Your task to perform on an android device: turn pop-ups on in chrome Image 0: 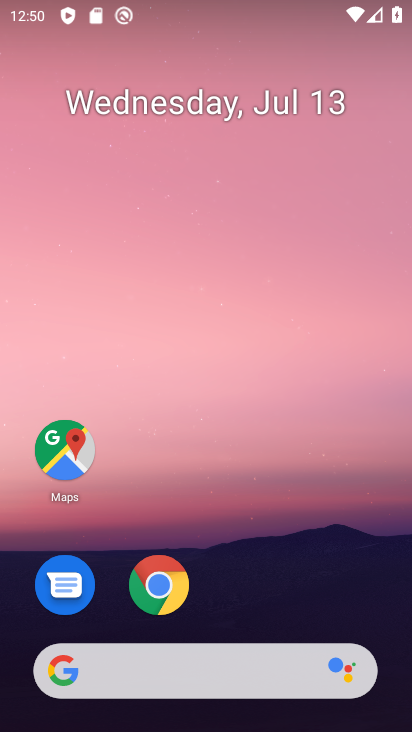
Step 0: click (157, 594)
Your task to perform on an android device: turn pop-ups on in chrome Image 1: 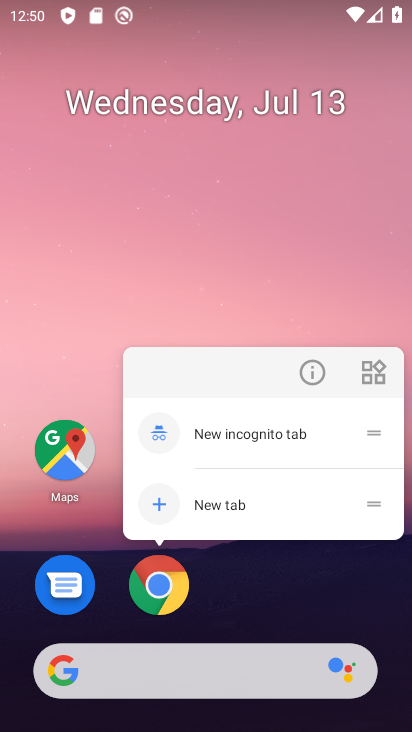
Step 1: click (161, 590)
Your task to perform on an android device: turn pop-ups on in chrome Image 2: 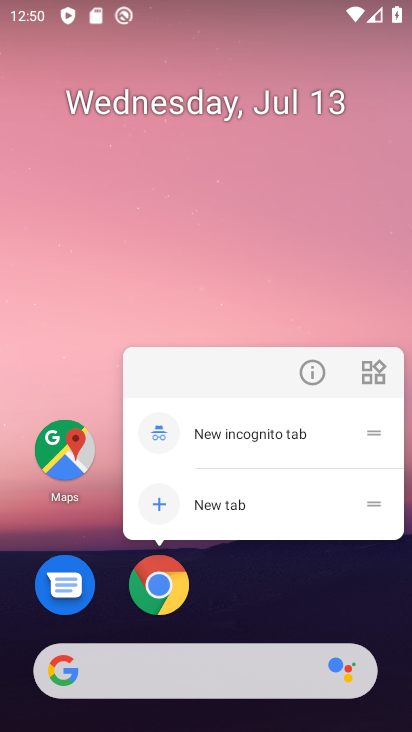
Step 2: click (161, 590)
Your task to perform on an android device: turn pop-ups on in chrome Image 3: 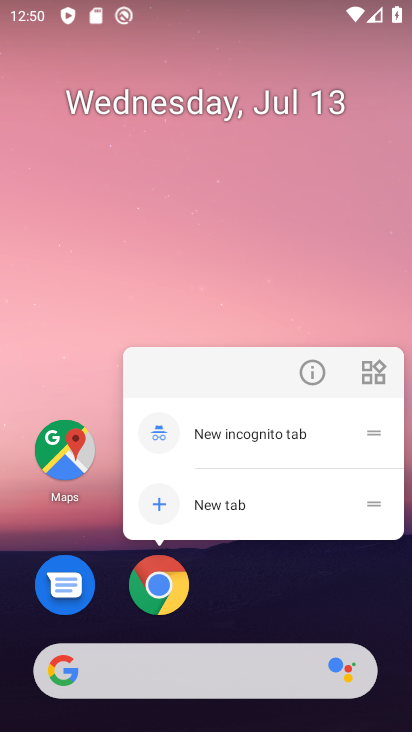
Step 3: click (161, 590)
Your task to perform on an android device: turn pop-ups on in chrome Image 4: 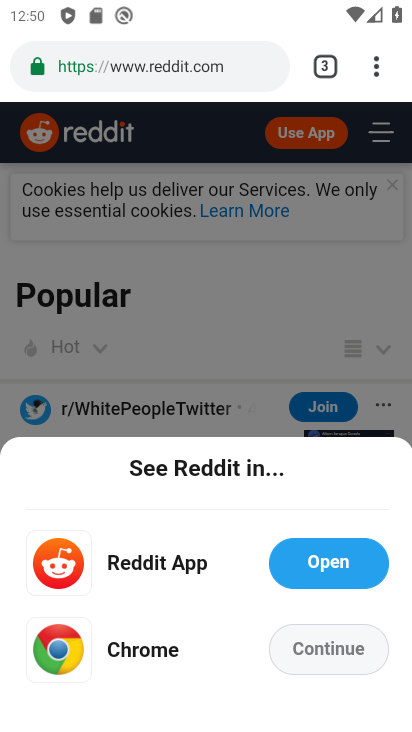
Step 4: drag from (375, 73) to (193, 606)
Your task to perform on an android device: turn pop-ups on in chrome Image 5: 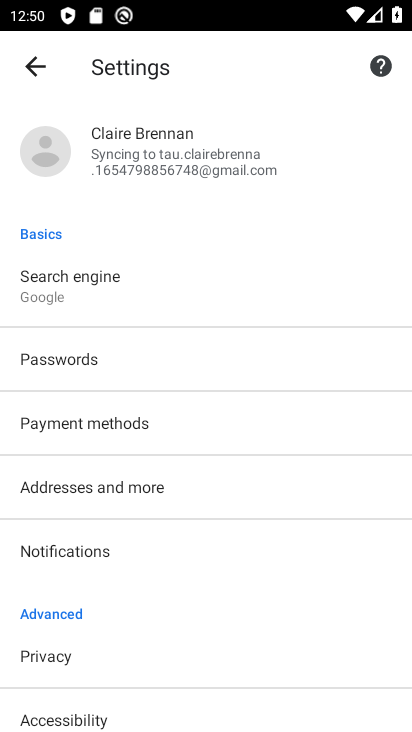
Step 5: drag from (156, 658) to (342, 176)
Your task to perform on an android device: turn pop-ups on in chrome Image 6: 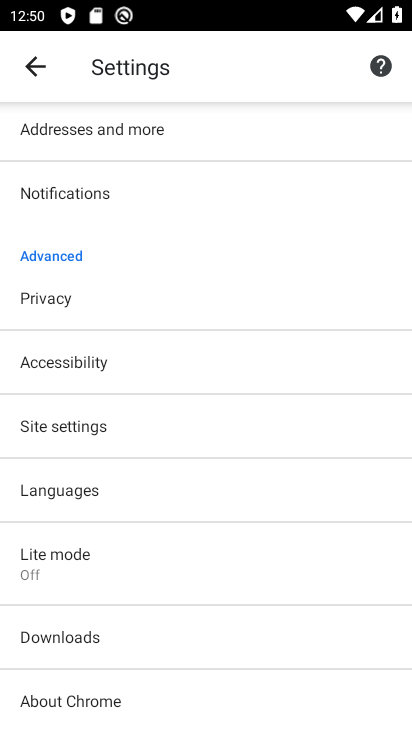
Step 6: click (111, 433)
Your task to perform on an android device: turn pop-ups on in chrome Image 7: 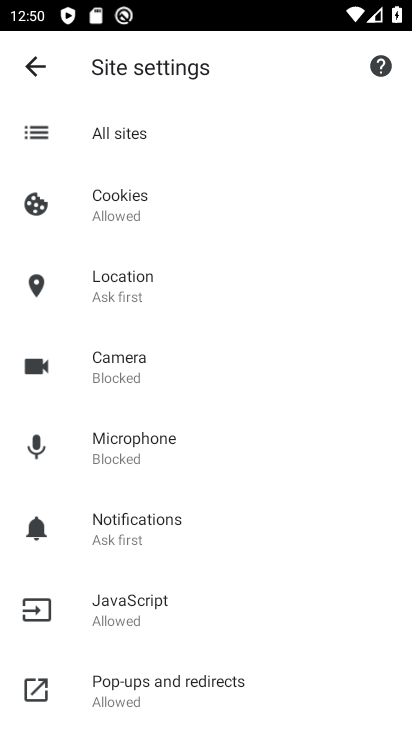
Step 7: click (143, 688)
Your task to perform on an android device: turn pop-ups on in chrome Image 8: 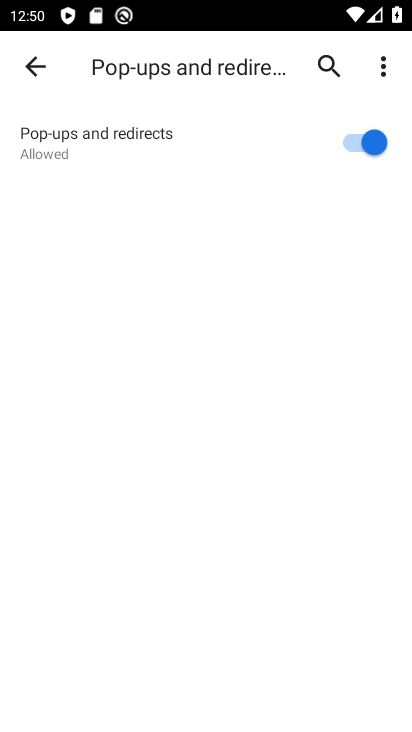
Step 8: task complete